Your task to perform on an android device: turn on wifi Image 0: 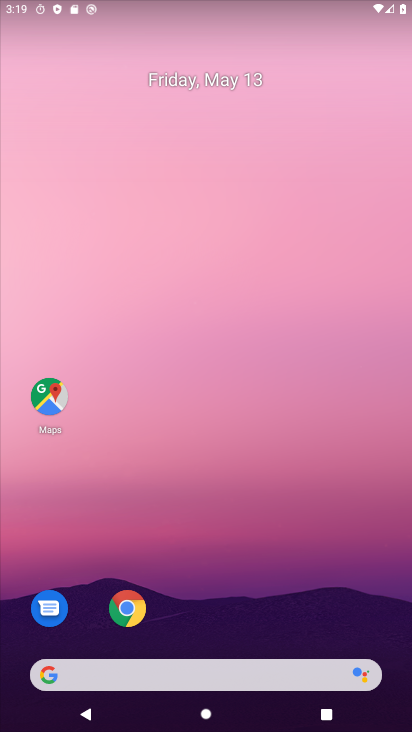
Step 0: drag from (312, 19) to (336, 511)
Your task to perform on an android device: turn on wifi Image 1: 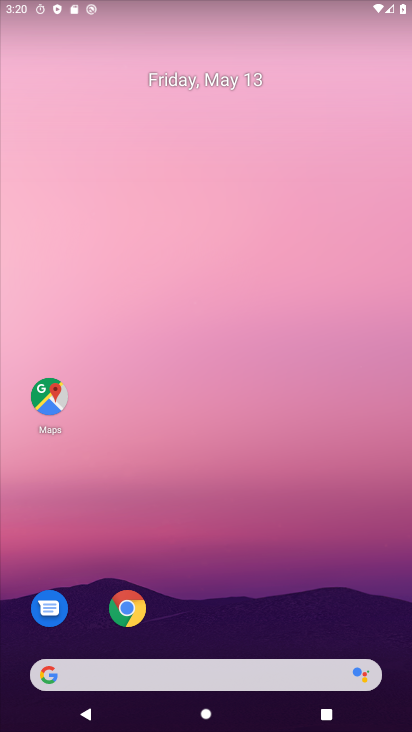
Step 1: task complete